Your task to perform on an android device: Open Google Chrome and click the shortcut for Amazon.com Image 0: 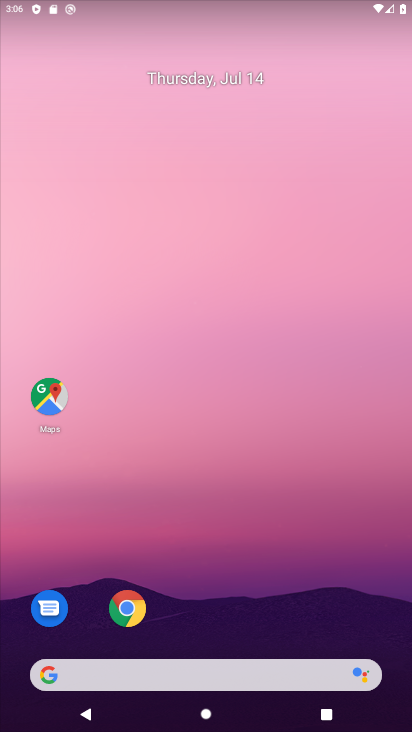
Step 0: drag from (223, 623) to (210, 71)
Your task to perform on an android device: Open Google Chrome and click the shortcut for Amazon.com Image 1: 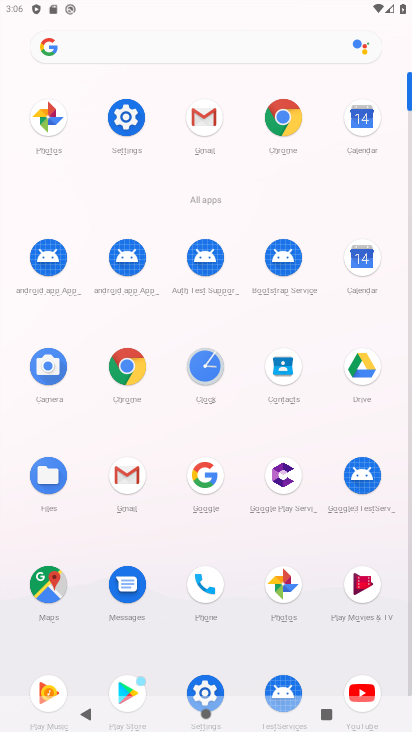
Step 1: click (124, 365)
Your task to perform on an android device: Open Google Chrome and click the shortcut for Amazon.com Image 2: 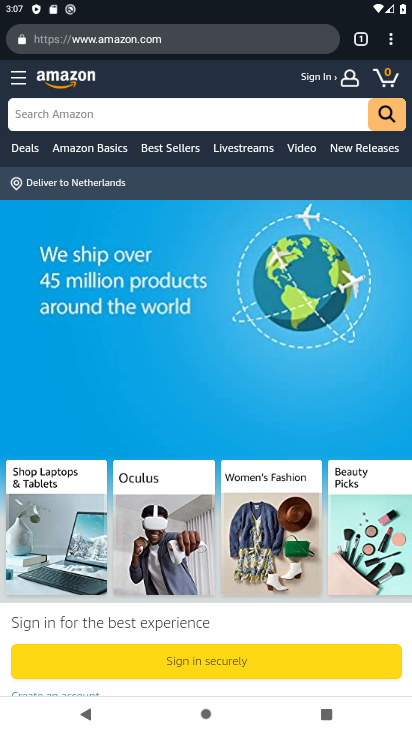
Step 2: task complete